Your task to perform on an android device: set default search engine in the chrome app Image 0: 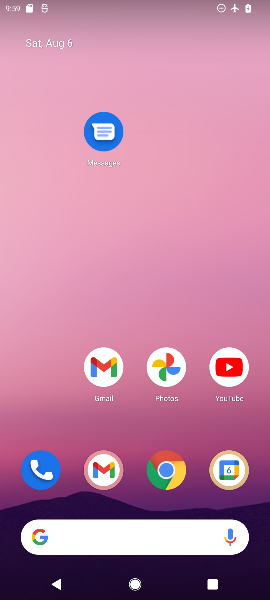
Step 0: drag from (152, 528) to (161, 176)
Your task to perform on an android device: set default search engine in the chrome app Image 1: 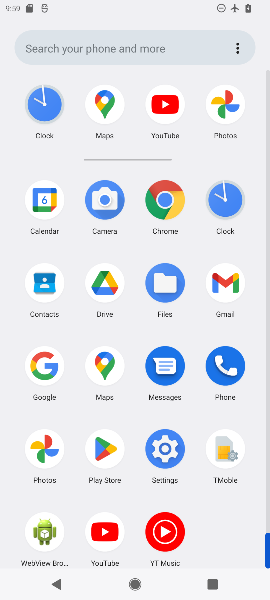
Step 1: click (174, 203)
Your task to perform on an android device: set default search engine in the chrome app Image 2: 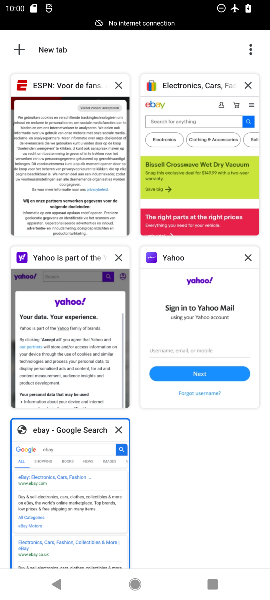
Step 2: click (208, 106)
Your task to perform on an android device: set default search engine in the chrome app Image 3: 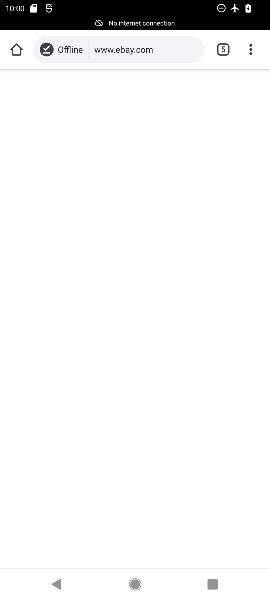
Step 3: click (257, 49)
Your task to perform on an android device: set default search engine in the chrome app Image 4: 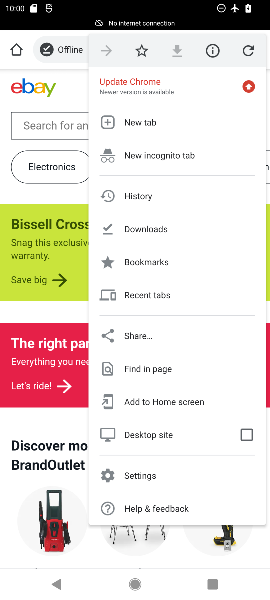
Step 4: click (147, 479)
Your task to perform on an android device: set default search engine in the chrome app Image 5: 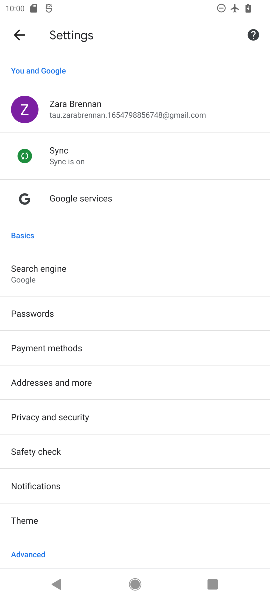
Step 5: click (41, 278)
Your task to perform on an android device: set default search engine in the chrome app Image 6: 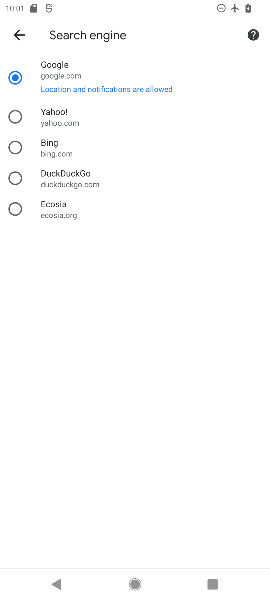
Step 6: task complete